Your task to perform on an android device: change keyboard looks Image 0: 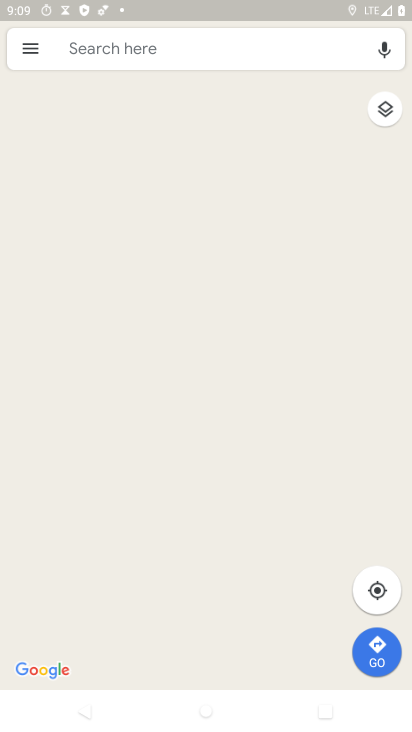
Step 0: press back button
Your task to perform on an android device: change keyboard looks Image 1: 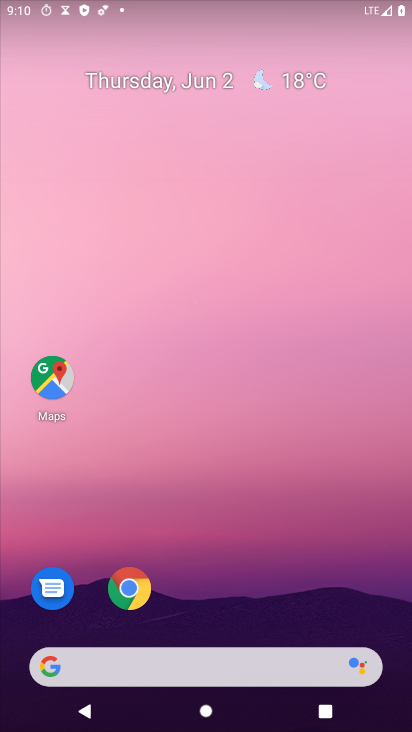
Step 1: press home button
Your task to perform on an android device: change keyboard looks Image 2: 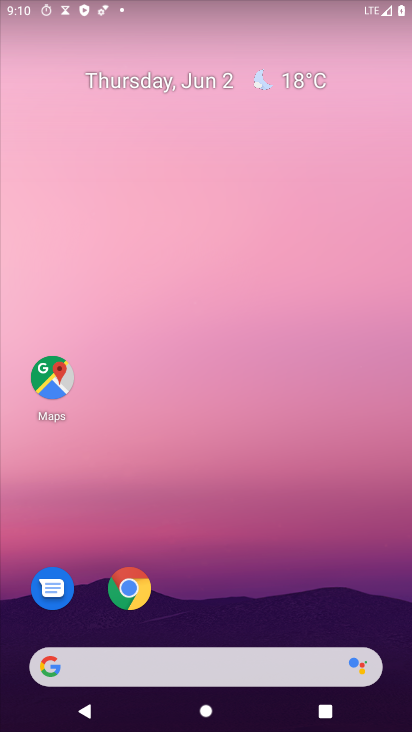
Step 2: drag from (251, 545) to (257, 25)
Your task to perform on an android device: change keyboard looks Image 3: 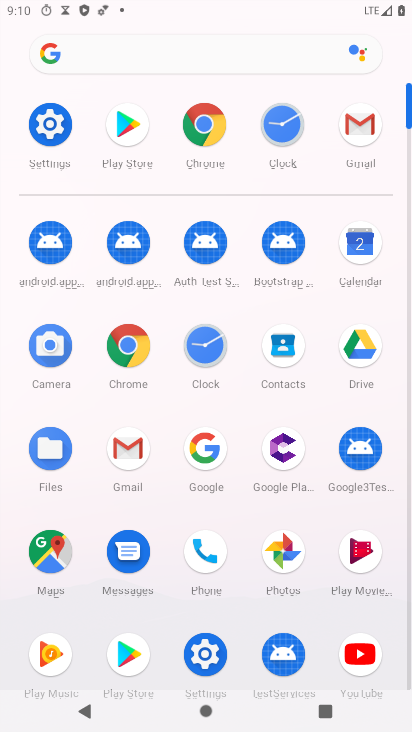
Step 3: click (50, 133)
Your task to perform on an android device: change keyboard looks Image 4: 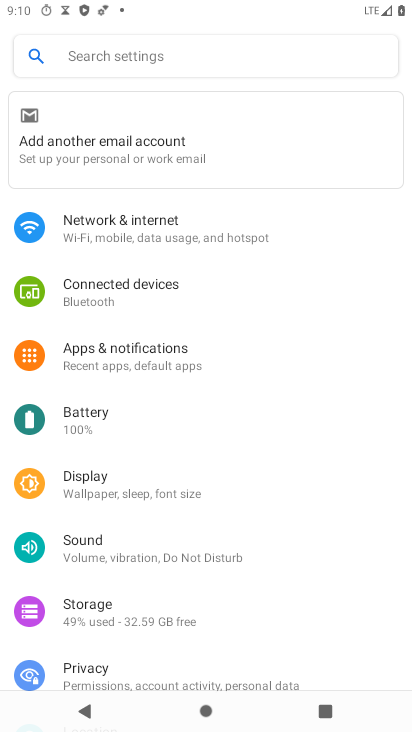
Step 4: drag from (161, 633) to (268, 84)
Your task to perform on an android device: change keyboard looks Image 5: 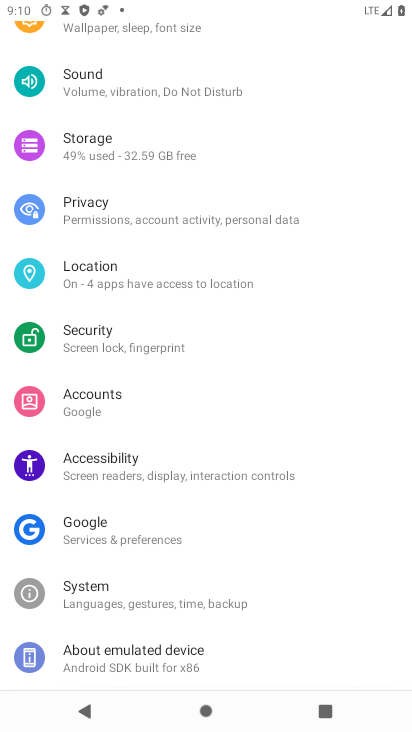
Step 5: drag from (228, 601) to (254, 79)
Your task to perform on an android device: change keyboard looks Image 6: 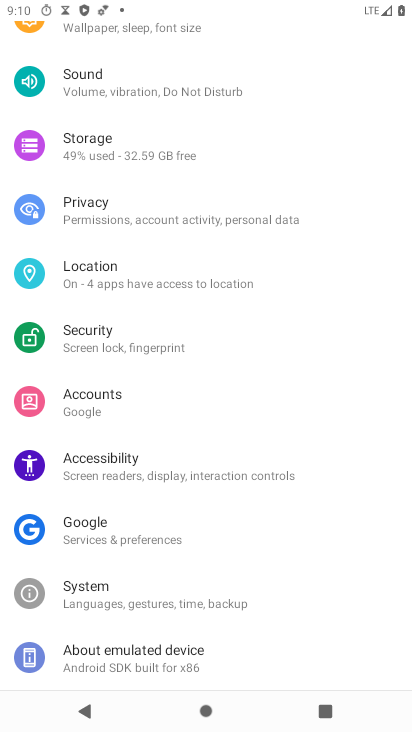
Step 6: click (117, 599)
Your task to perform on an android device: change keyboard looks Image 7: 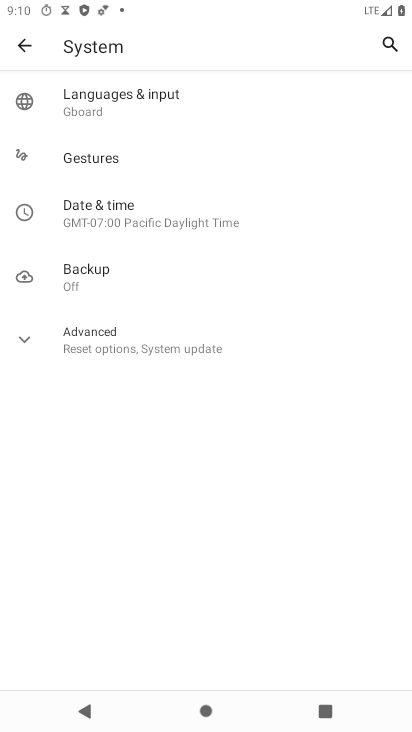
Step 7: click (139, 96)
Your task to perform on an android device: change keyboard looks Image 8: 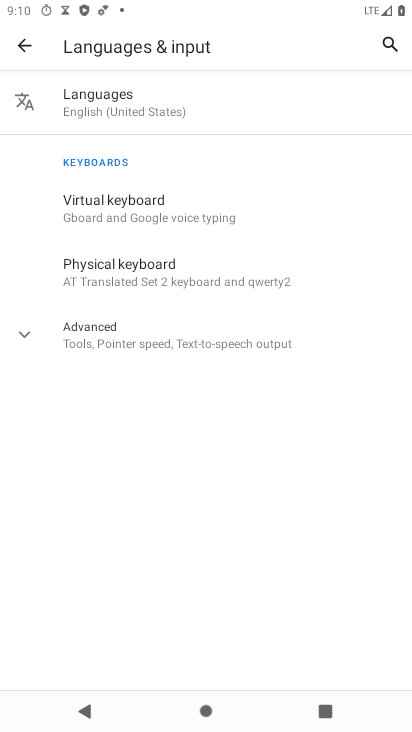
Step 8: click (116, 216)
Your task to perform on an android device: change keyboard looks Image 9: 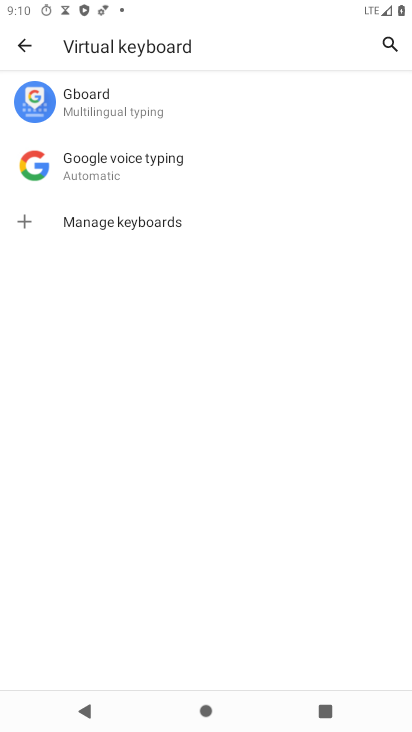
Step 9: click (138, 96)
Your task to perform on an android device: change keyboard looks Image 10: 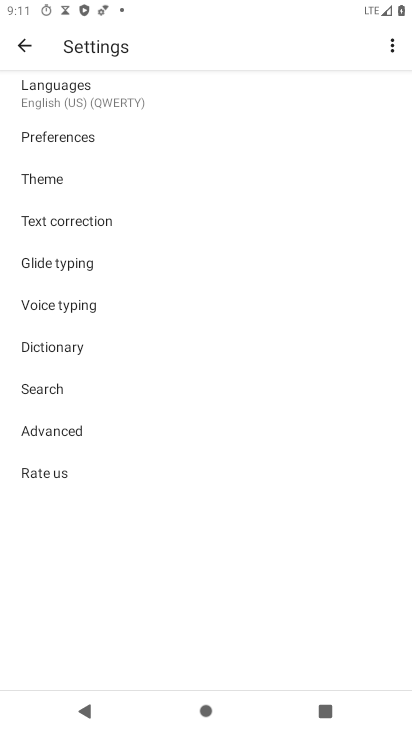
Step 10: click (54, 178)
Your task to perform on an android device: change keyboard looks Image 11: 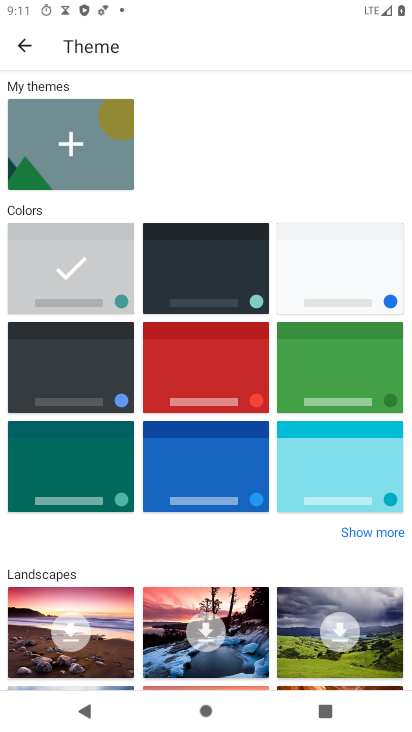
Step 11: click (311, 345)
Your task to perform on an android device: change keyboard looks Image 12: 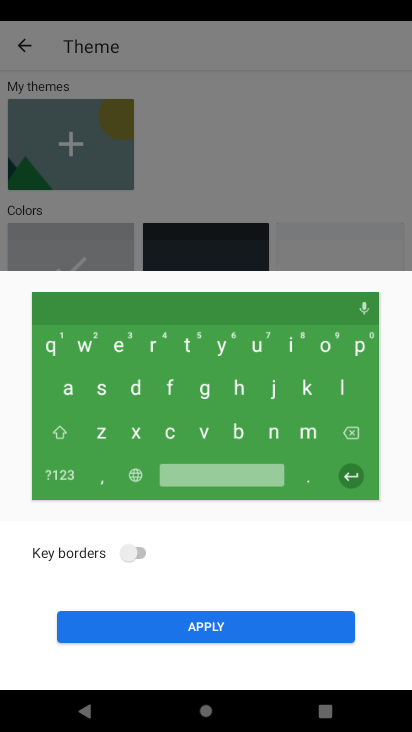
Step 12: click (238, 636)
Your task to perform on an android device: change keyboard looks Image 13: 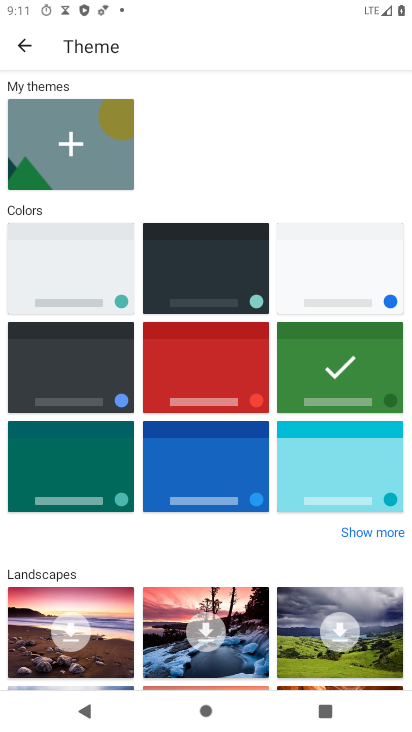
Step 13: task complete